Your task to perform on an android device: turn off data saver in the chrome app Image 0: 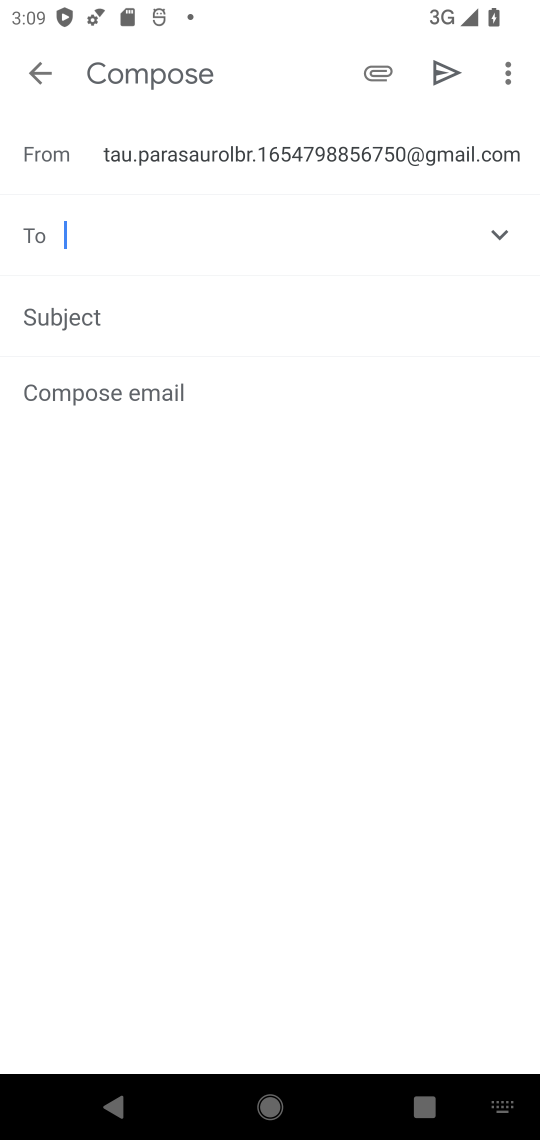
Step 0: press home button
Your task to perform on an android device: turn off data saver in the chrome app Image 1: 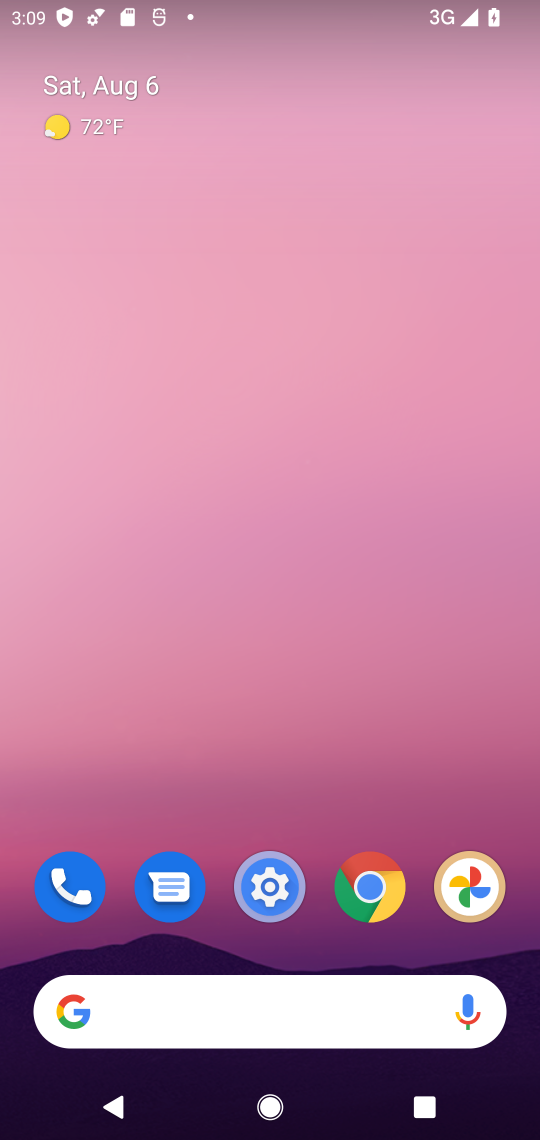
Step 1: drag from (426, 791) to (418, 185)
Your task to perform on an android device: turn off data saver in the chrome app Image 2: 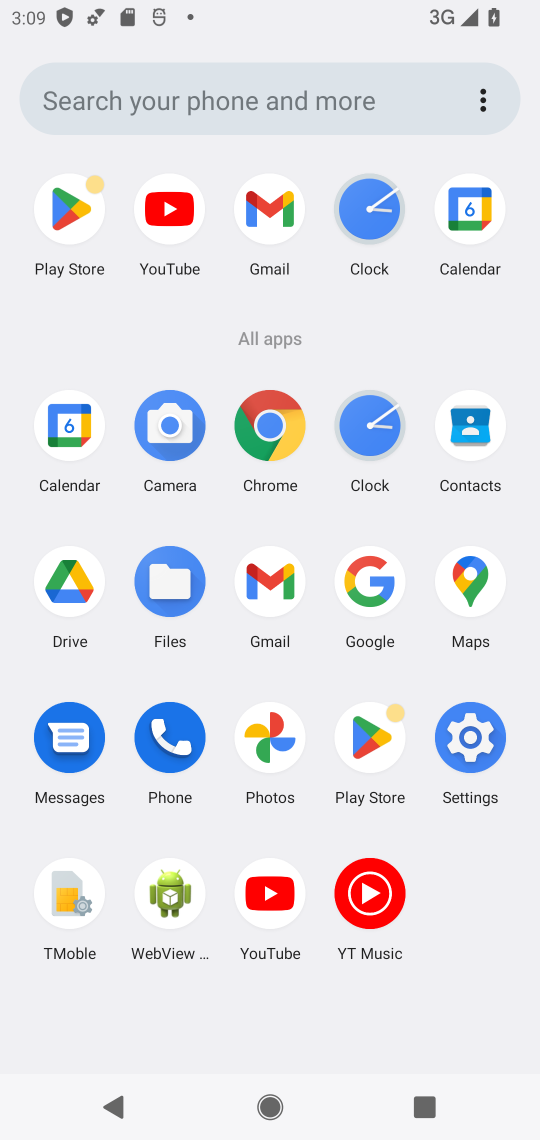
Step 2: click (285, 428)
Your task to perform on an android device: turn off data saver in the chrome app Image 3: 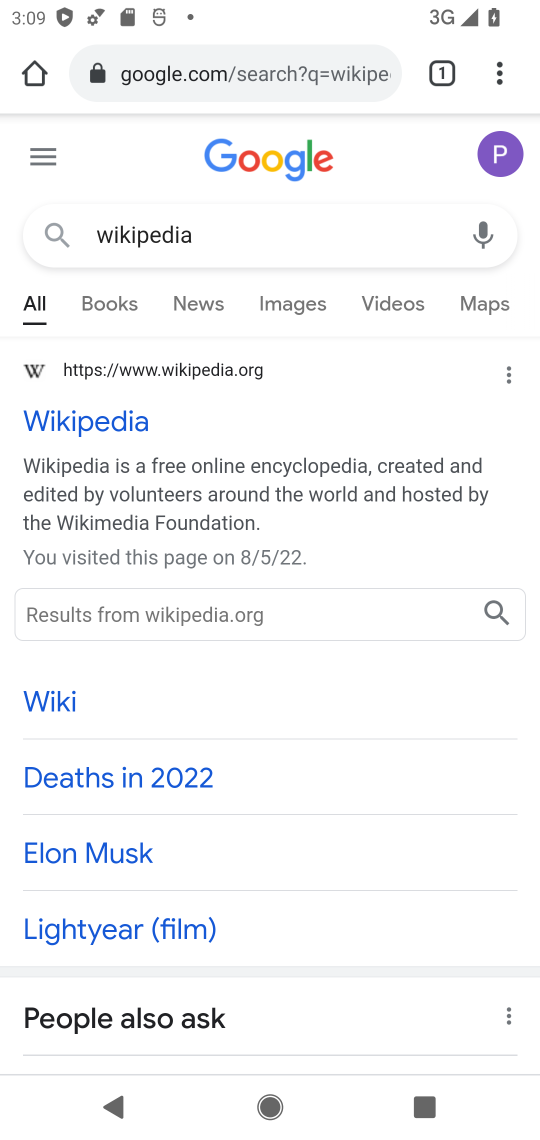
Step 3: click (496, 75)
Your task to perform on an android device: turn off data saver in the chrome app Image 4: 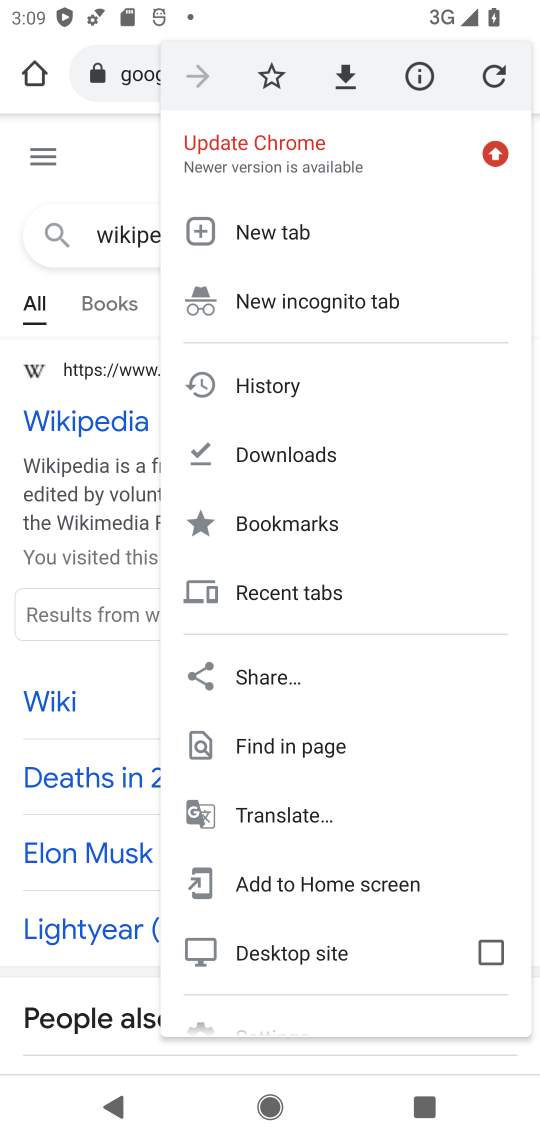
Step 4: drag from (453, 628) to (462, 470)
Your task to perform on an android device: turn off data saver in the chrome app Image 5: 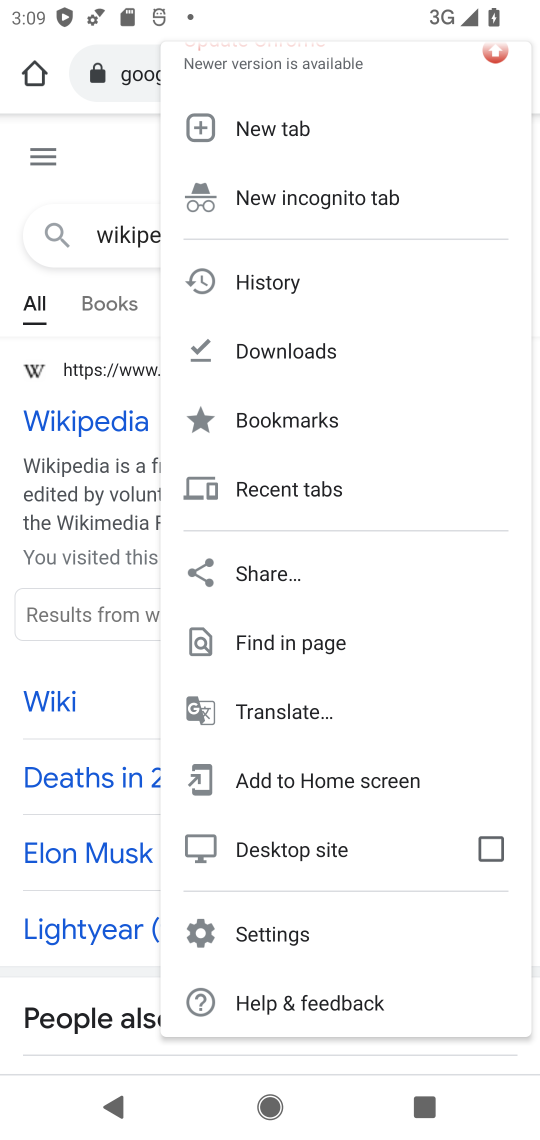
Step 5: click (387, 934)
Your task to perform on an android device: turn off data saver in the chrome app Image 6: 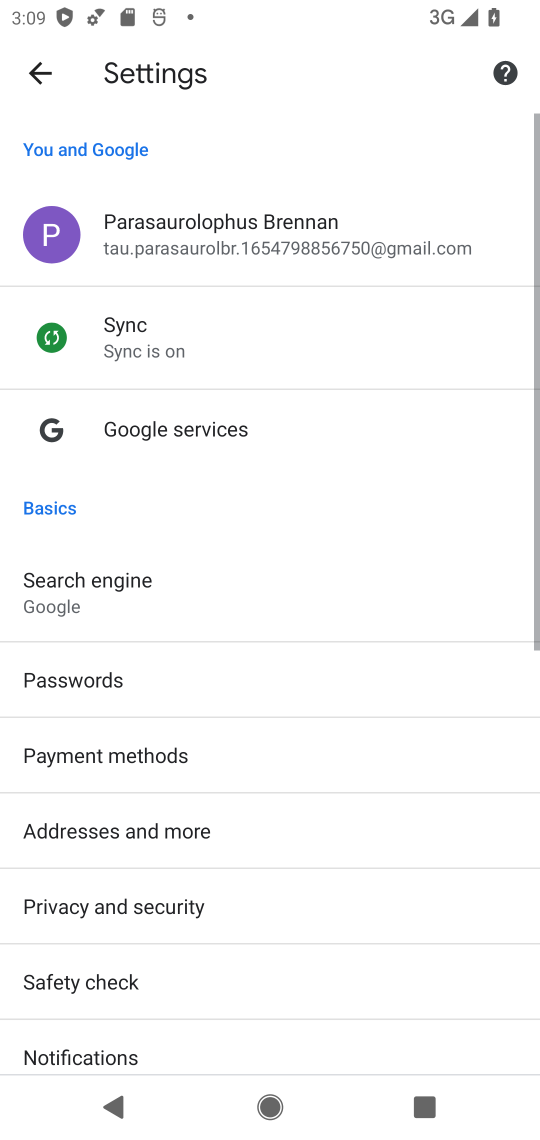
Step 6: drag from (390, 924) to (408, 780)
Your task to perform on an android device: turn off data saver in the chrome app Image 7: 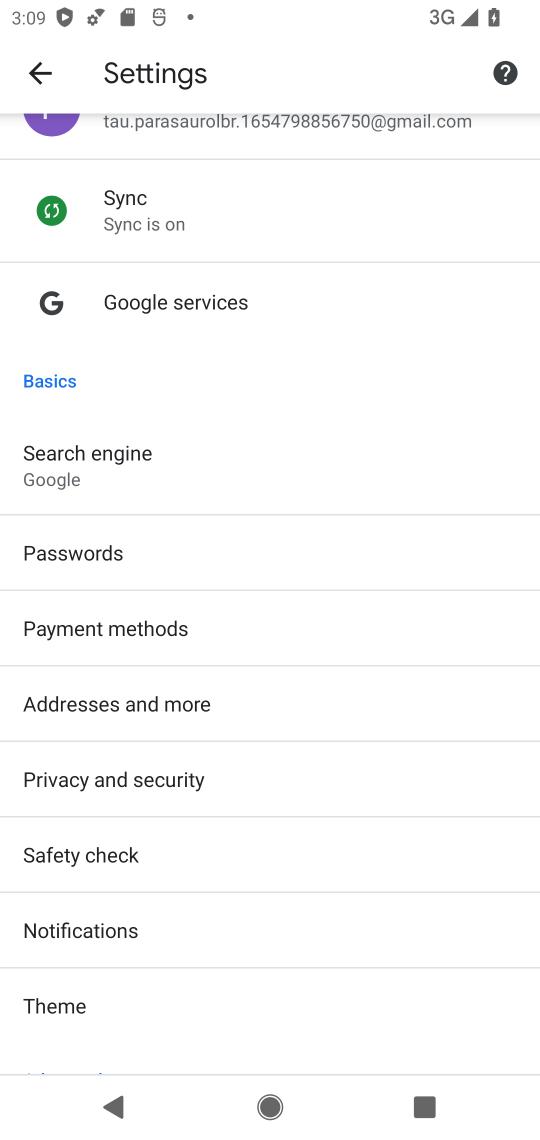
Step 7: drag from (416, 906) to (417, 714)
Your task to perform on an android device: turn off data saver in the chrome app Image 8: 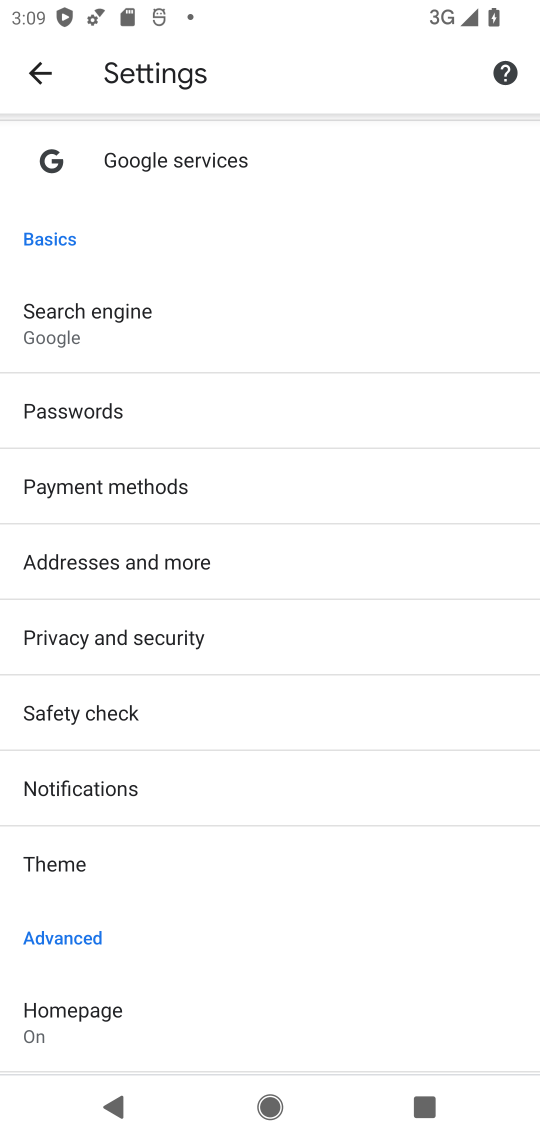
Step 8: drag from (388, 860) to (385, 562)
Your task to perform on an android device: turn off data saver in the chrome app Image 9: 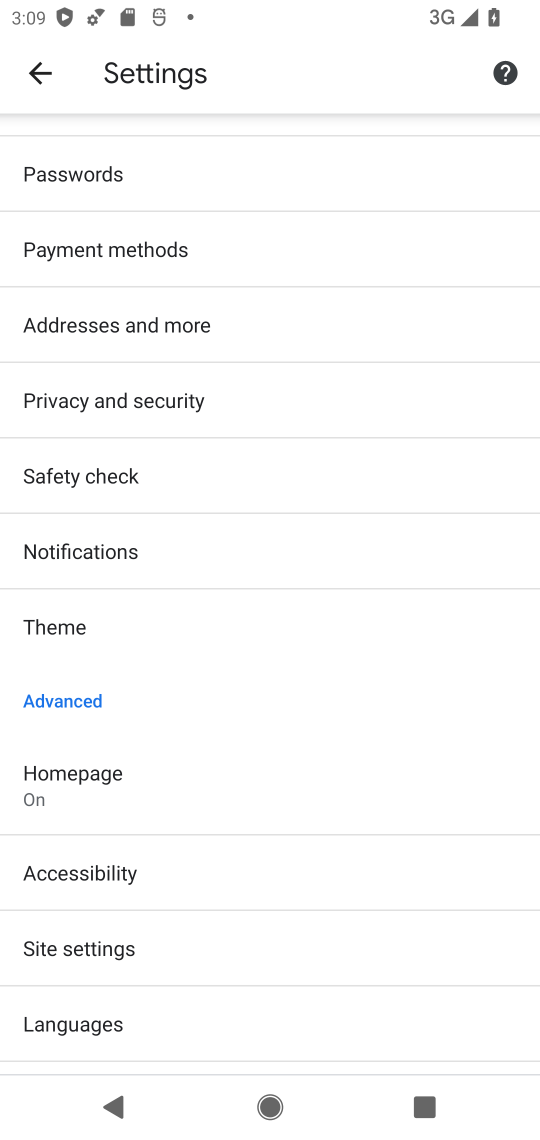
Step 9: drag from (387, 718) to (408, 571)
Your task to perform on an android device: turn off data saver in the chrome app Image 10: 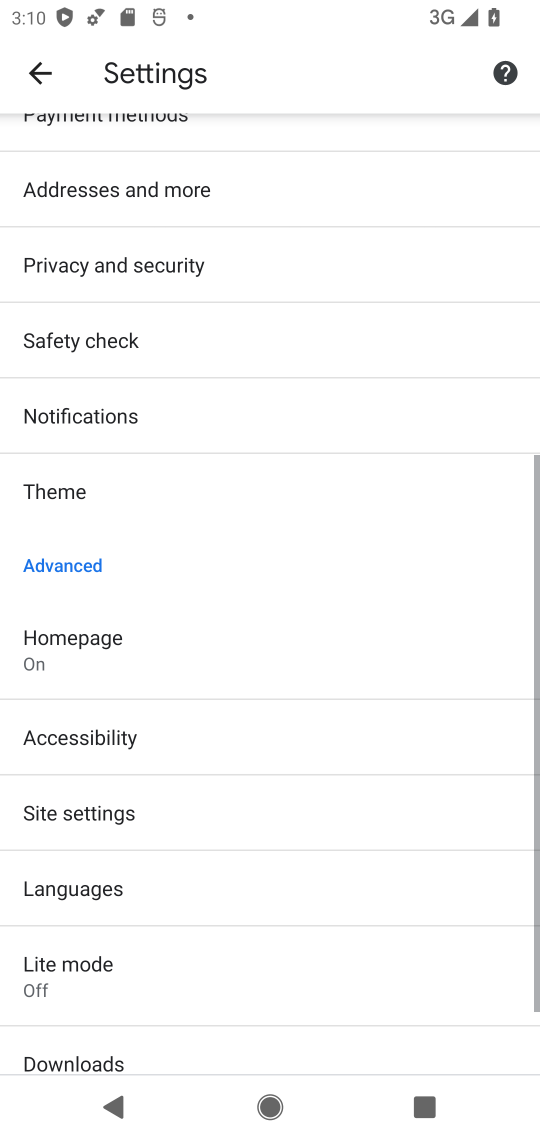
Step 10: drag from (417, 591) to (428, 482)
Your task to perform on an android device: turn off data saver in the chrome app Image 11: 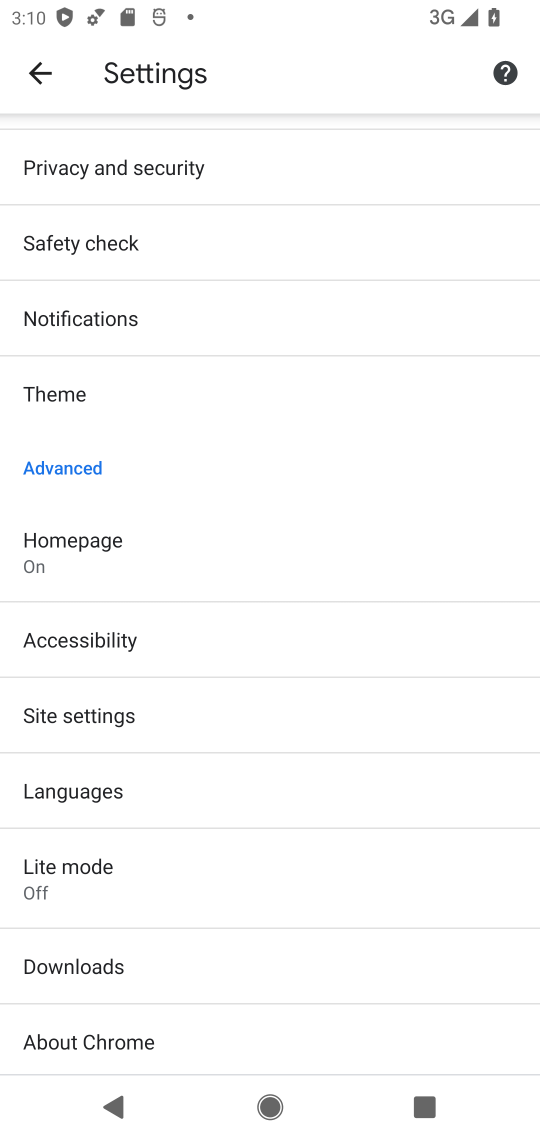
Step 11: click (292, 859)
Your task to perform on an android device: turn off data saver in the chrome app Image 12: 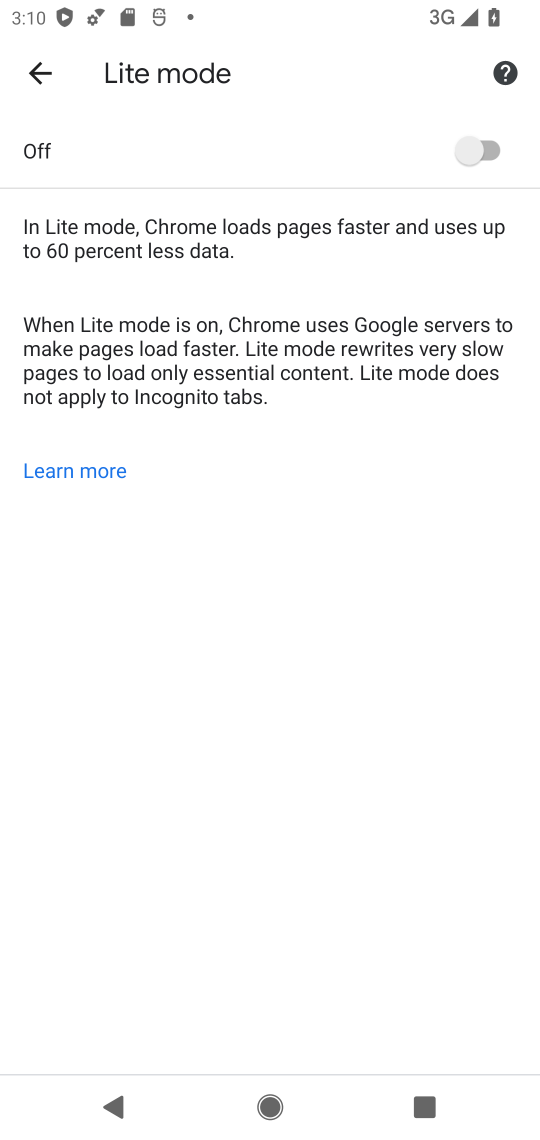
Step 12: task complete